Your task to perform on an android device: check data usage Image 0: 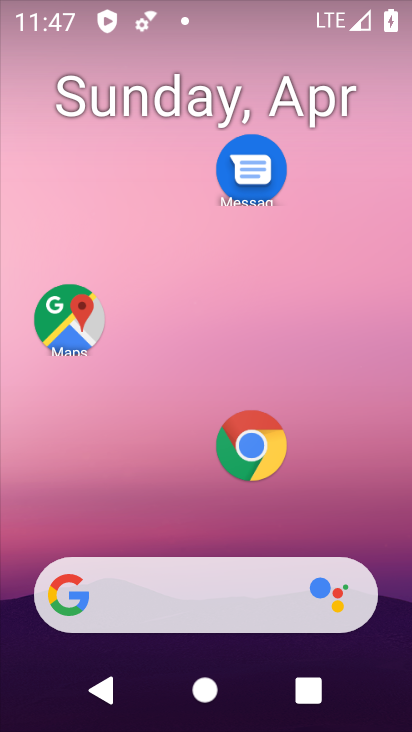
Step 0: drag from (141, 597) to (313, 116)
Your task to perform on an android device: check data usage Image 1: 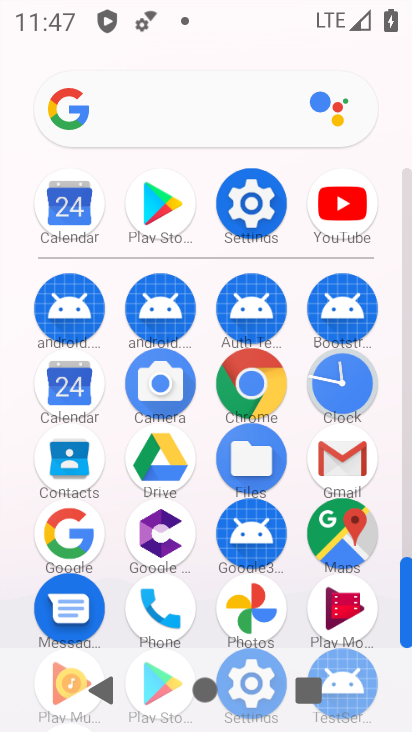
Step 1: click (249, 205)
Your task to perform on an android device: check data usage Image 2: 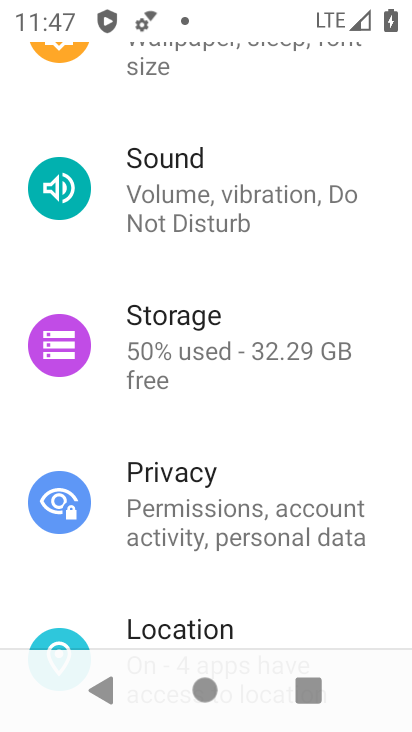
Step 2: drag from (294, 107) to (213, 586)
Your task to perform on an android device: check data usage Image 3: 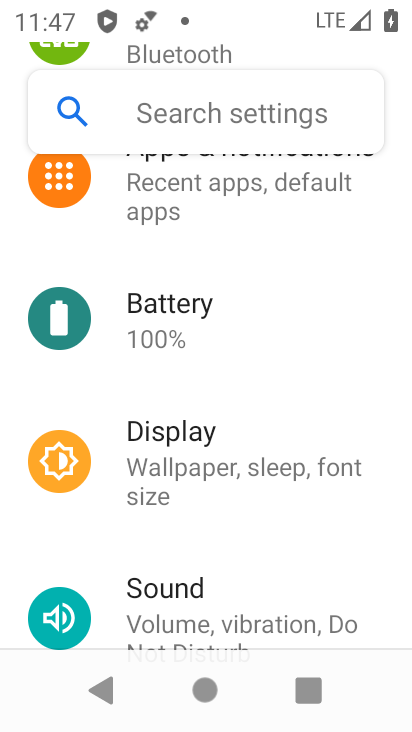
Step 3: drag from (289, 220) to (243, 572)
Your task to perform on an android device: check data usage Image 4: 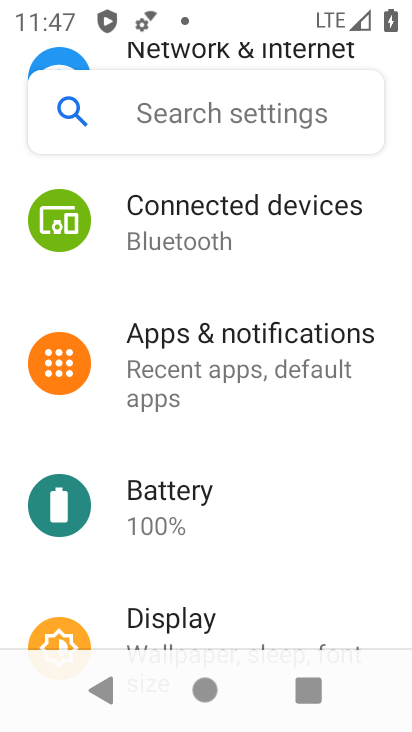
Step 4: drag from (280, 248) to (249, 623)
Your task to perform on an android device: check data usage Image 5: 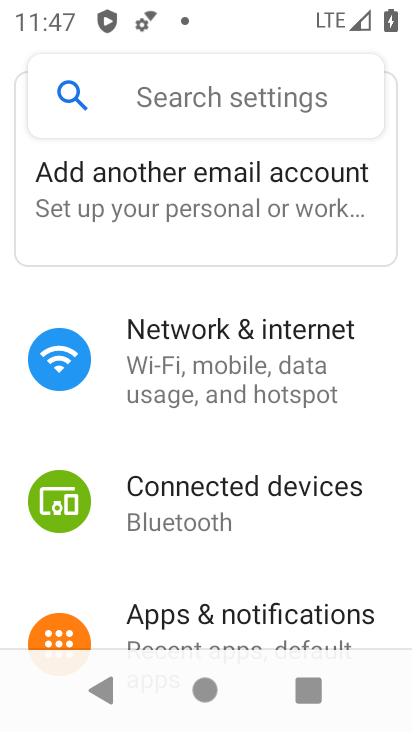
Step 5: click (220, 368)
Your task to perform on an android device: check data usage Image 6: 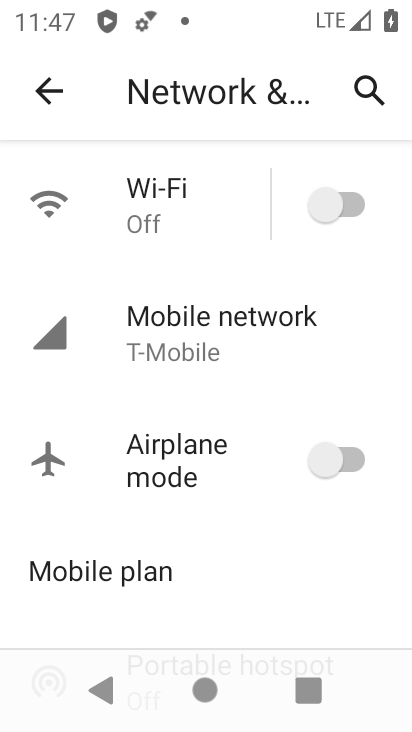
Step 6: click (187, 226)
Your task to perform on an android device: check data usage Image 7: 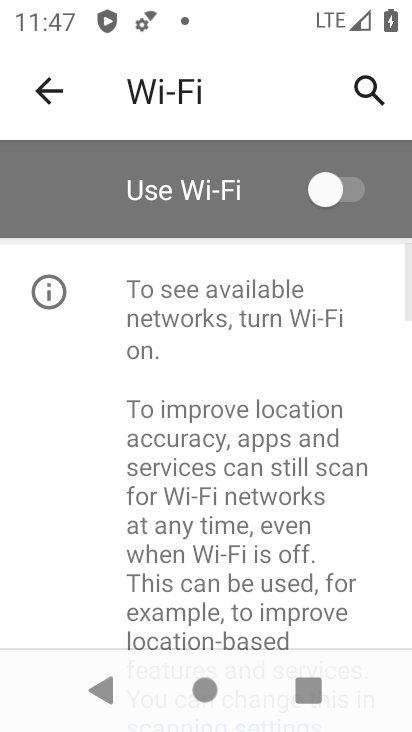
Step 7: drag from (206, 607) to (394, 21)
Your task to perform on an android device: check data usage Image 8: 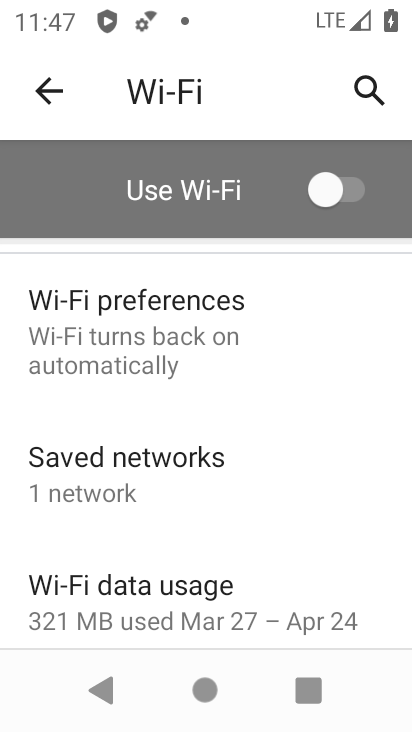
Step 8: drag from (174, 577) to (290, 243)
Your task to perform on an android device: check data usage Image 9: 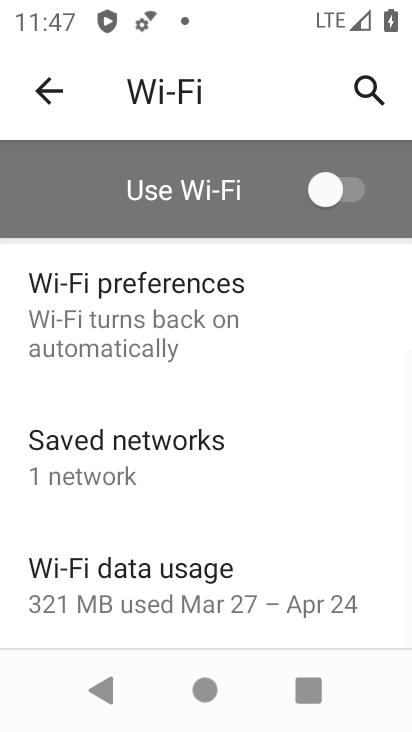
Step 9: click (177, 603)
Your task to perform on an android device: check data usage Image 10: 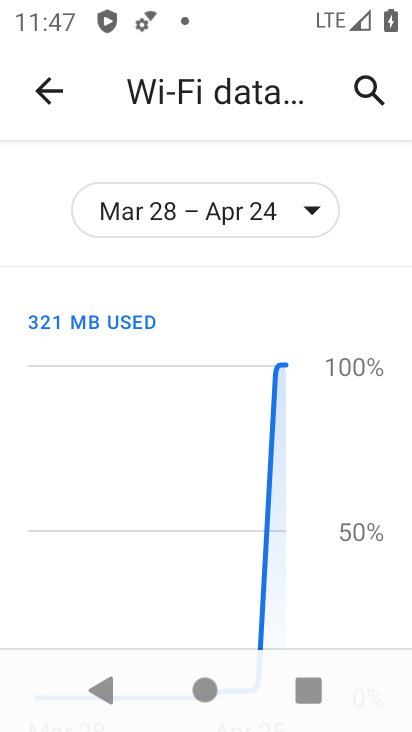
Step 10: task complete